Your task to perform on an android device: Toggle the flashlight Image 0: 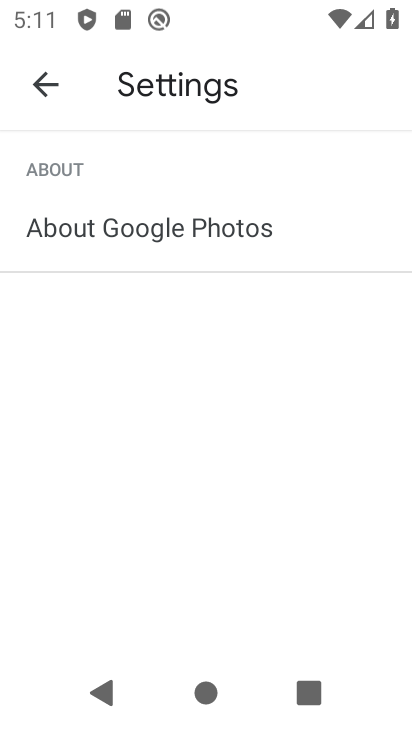
Step 0: press home button
Your task to perform on an android device: Toggle the flashlight Image 1: 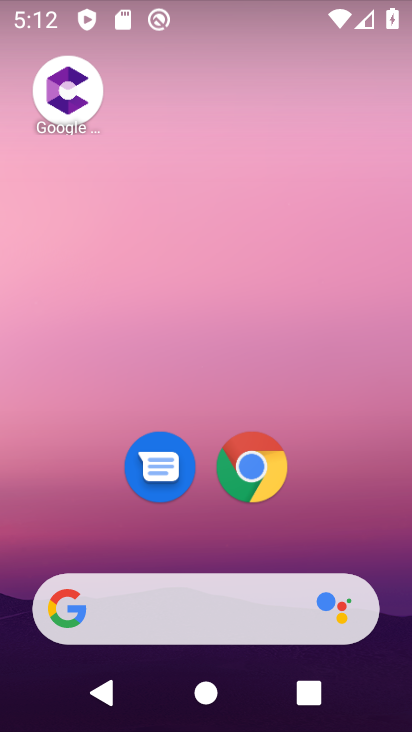
Step 1: drag from (213, 497) to (245, 16)
Your task to perform on an android device: Toggle the flashlight Image 2: 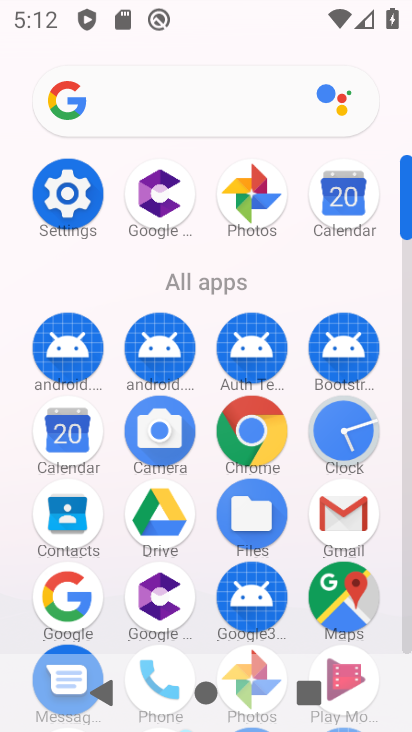
Step 2: click (71, 196)
Your task to perform on an android device: Toggle the flashlight Image 3: 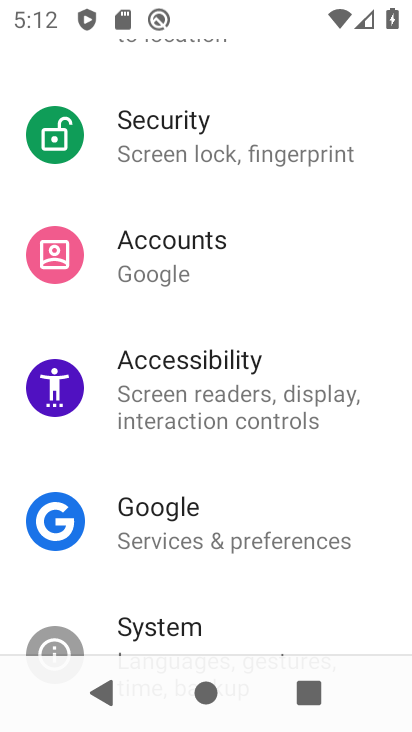
Step 3: drag from (205, 230) to (185, 466)
Your task to perform on an android device: Toggle the flashlight Image 4: 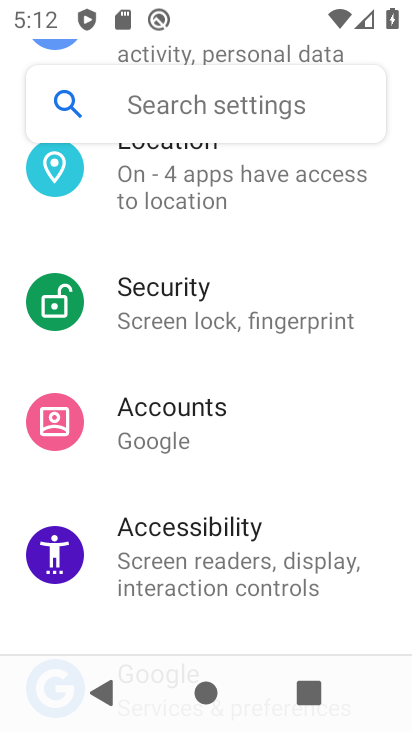
Step 4: click (190, 99)
Your task to perform on an android device: Toggle the flashlight Image 5: 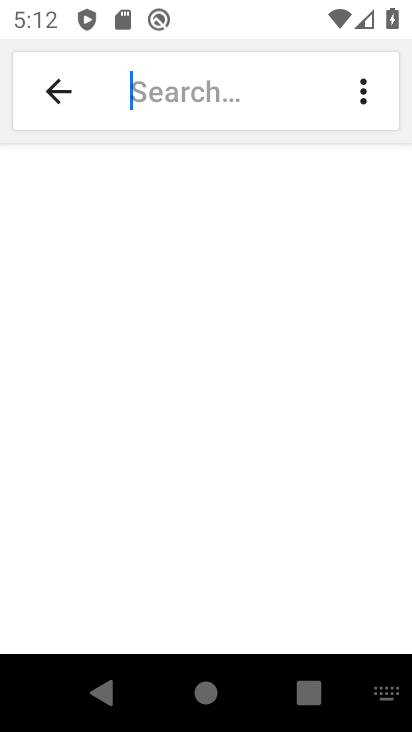
Step 5: type "flashlight"
Your task to perform on an android device: Toggle the flashlight Image 6: 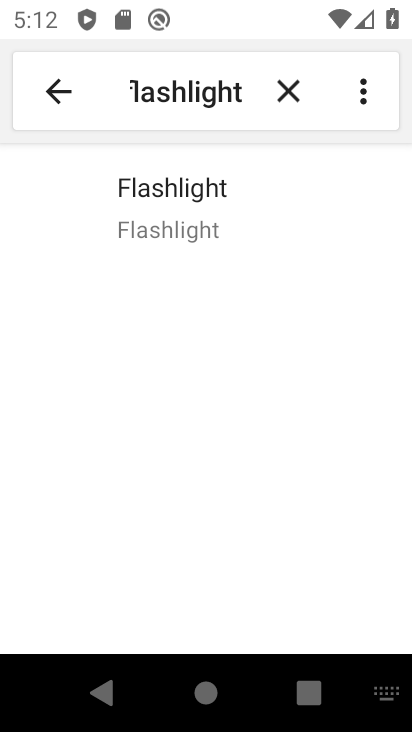
Step 6: click (186, 198)
Your task to perform on an android device: Toggle the flashlight Image 7: 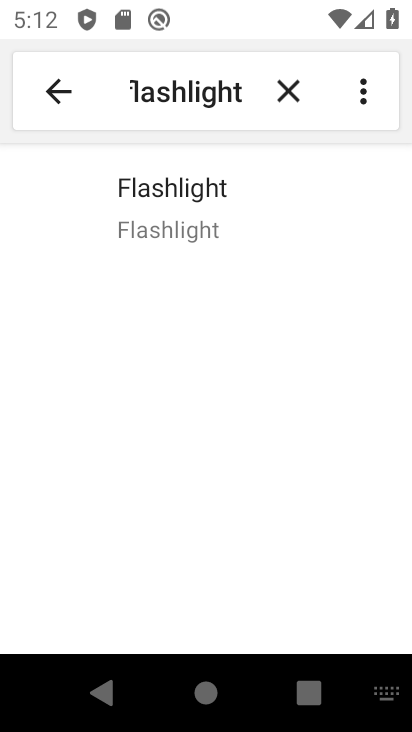
Step 7: click (186, 198)
Your task to perform on an android device: Toggle the flashlight Image 8: 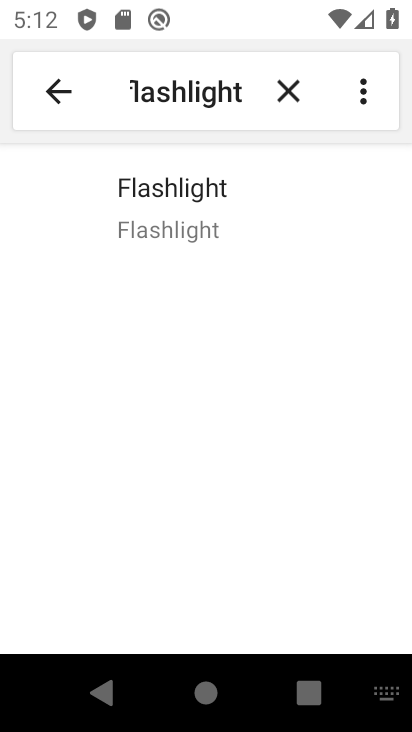
Step 8: click (173, 218)
Your task to perform on an android device: Toggle the flashlight Image 9: 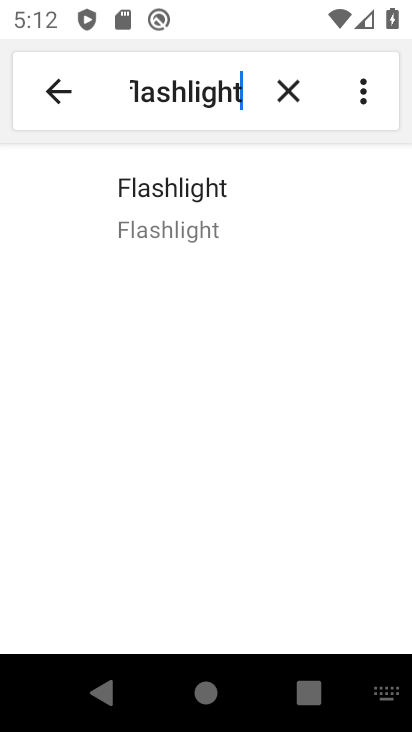
Step 9: task complete